Your task to perform on an android device: What is the recent news? Image 0: 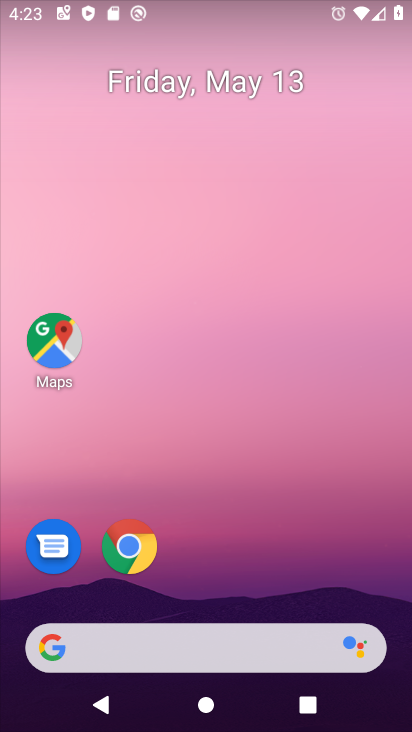
Step 0: drag from (194, 564) to (284, 105)
Your task to perform on an android device: What is the recent news? Image 1: 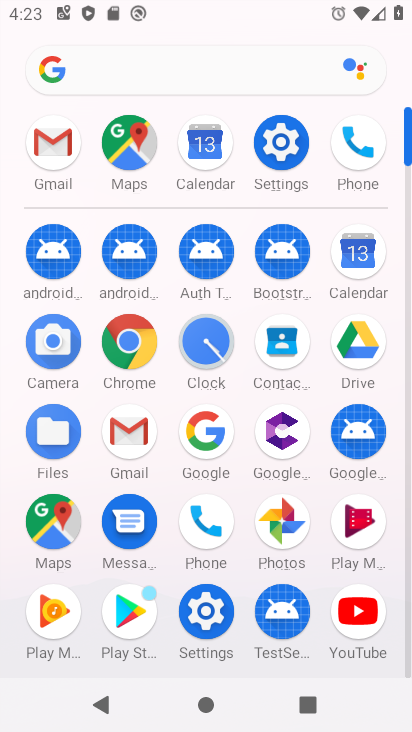
Step 1: click (182, 61)
Your task to perform on an android device: What is the recent news? Image 2: 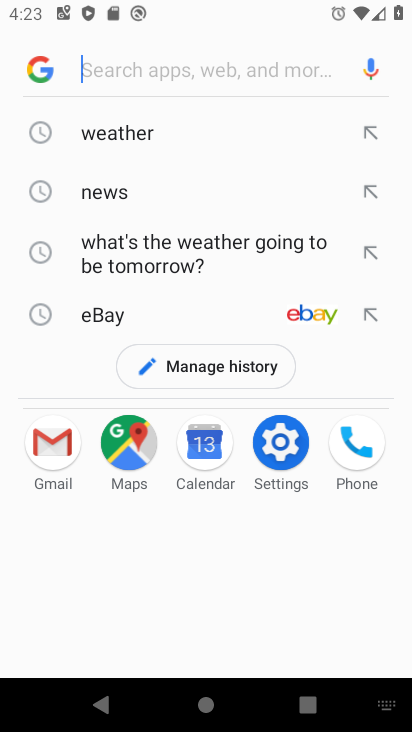
Step 2: type "recent news?"
Your task to perform on an android device: What is the recent news? Image 3: 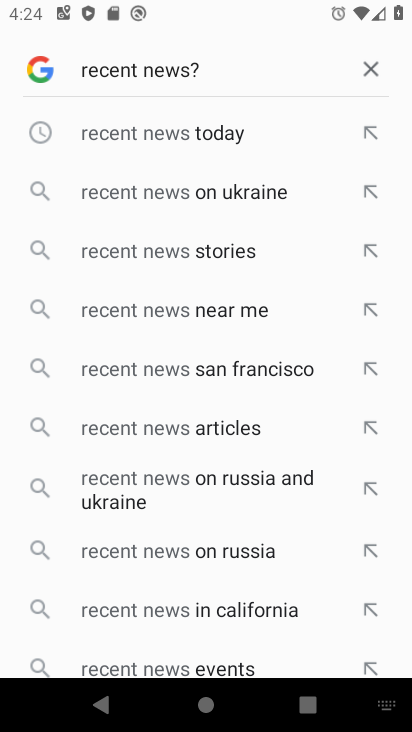
Step 3: click (168, 153)
Your task to perform on an android device: What is the recent news? Image 4: 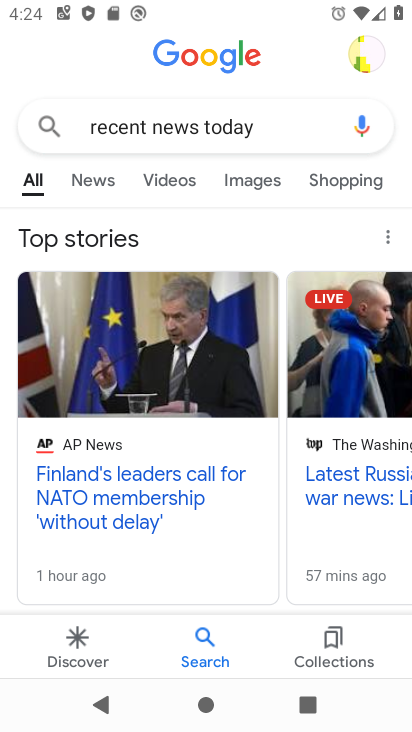
Step 4: task complete